Your task to perform on an android device: Search for Mexican restaurants on Maps Image 0: 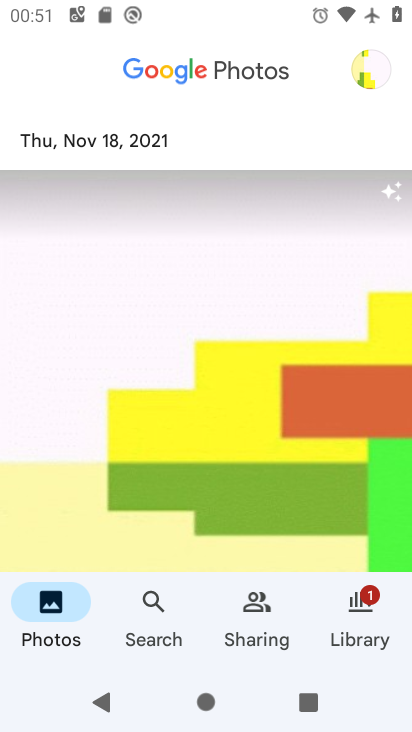
Step 0: press home button
Your task to perform on an android device: Search for Mexican restaurants on Maps Image 1: 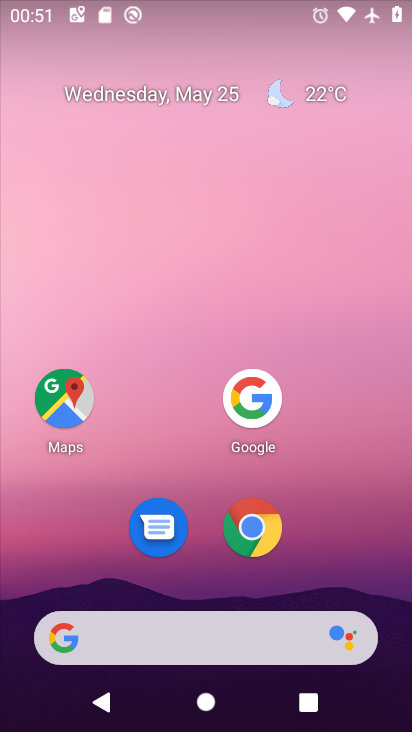
Step 1: click (59, 399)
Your task to perform on an android device: Search for Mexican restaurants on Maps Image 2: 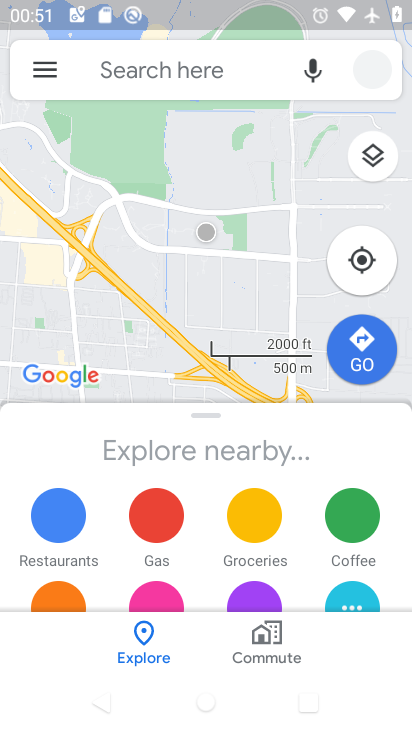
Step 2: click (183, 69)
Your task to perform on an android device: Search for Mexican restaurants on Maps Image 3: 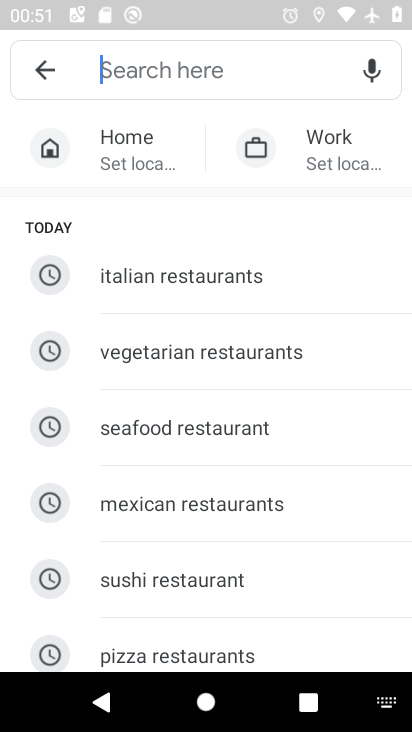
Step 3: click (238, 502)
Your task to perform on an android device: Search for Mexican restaurants on Maps Image 4: 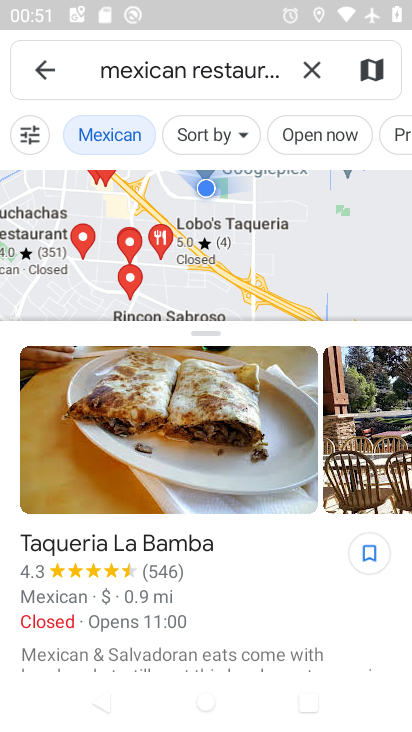
Step 4: task complete